Your task to perform on an android device: turn pop-ups on in chrome Image 0: 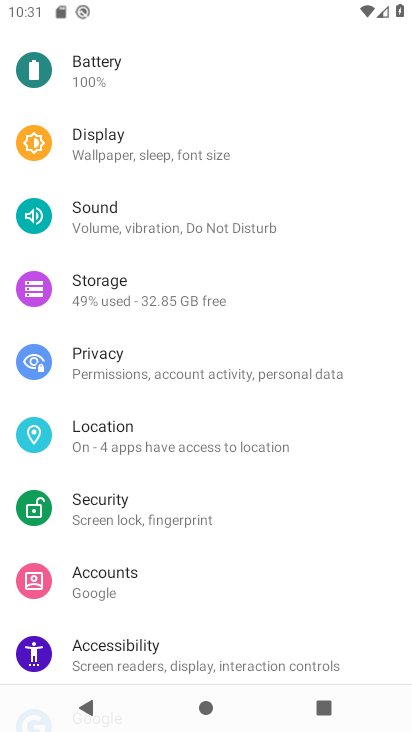
Step 0: press home button
Your task to perform on an android device: turn pop-ups on in chrome Image 1: 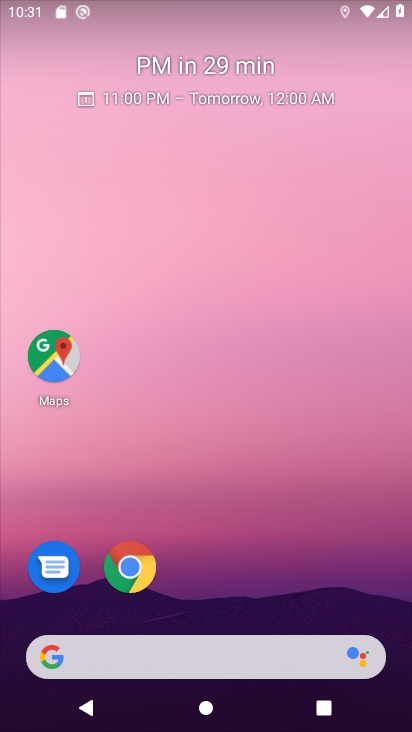
Step 1: click (149, 577)
Your task to perform on an android device: turn pop-ups on in chrome Image 2: 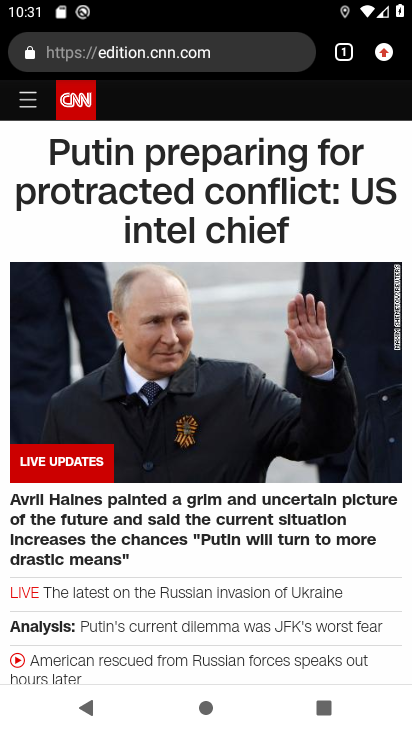
Step 2: click (382, 53)
Your task to perform on an android device: turn pop-ups on in chrome Image 3: 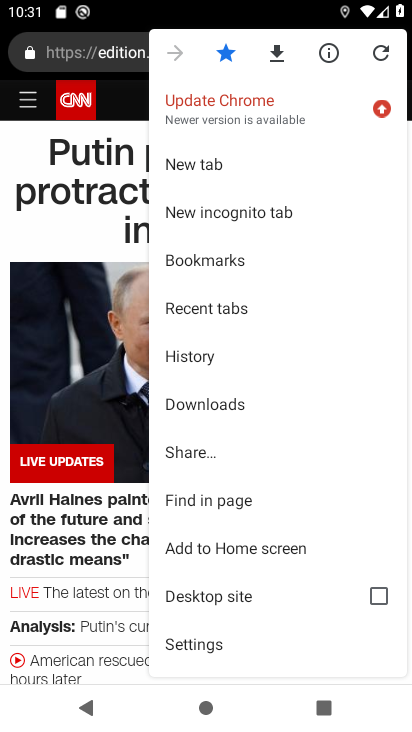
Step 3: click (195, 640)
Your task to perform on an android device: turn pop-ups on in chrome Image 4: 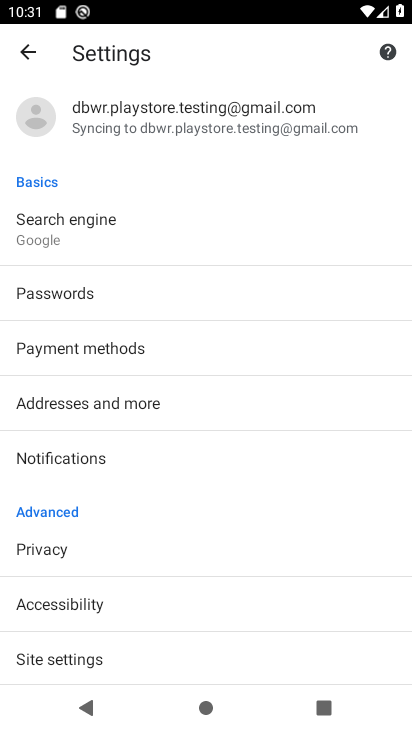
Step 4: click (66, 661)
Your task to perform on an android device: turn pop-ups on in chrome Image 5: 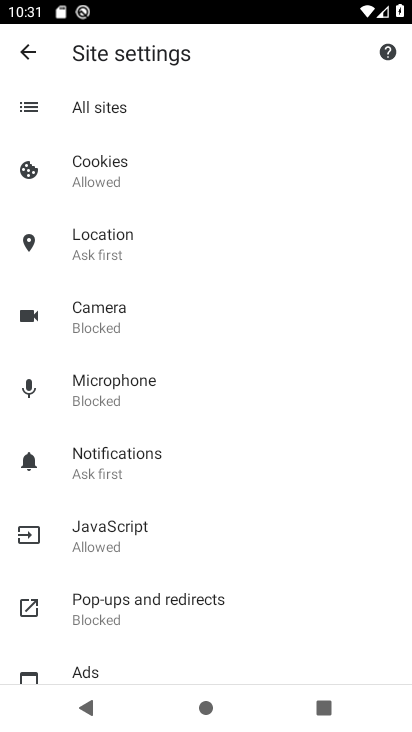
Step 5: drag from (111, 627) to (245, 247)
Your task to perform on an android device: turn pop-ups on in chrome Image 6: 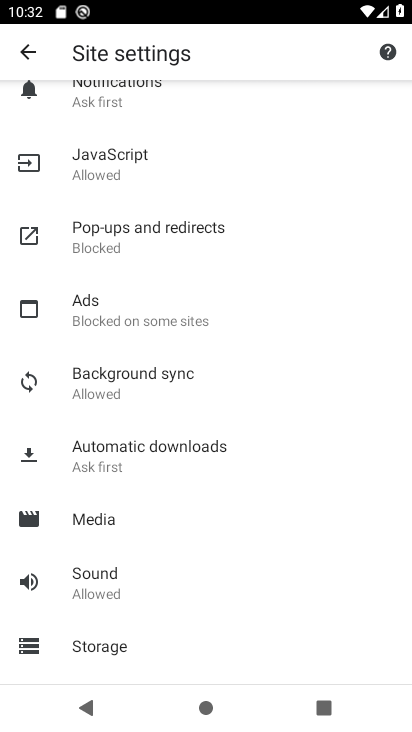
Step 6: click (245, 247)
Your task to perform on an android device: turn pop-ups on in chrome Image 7: 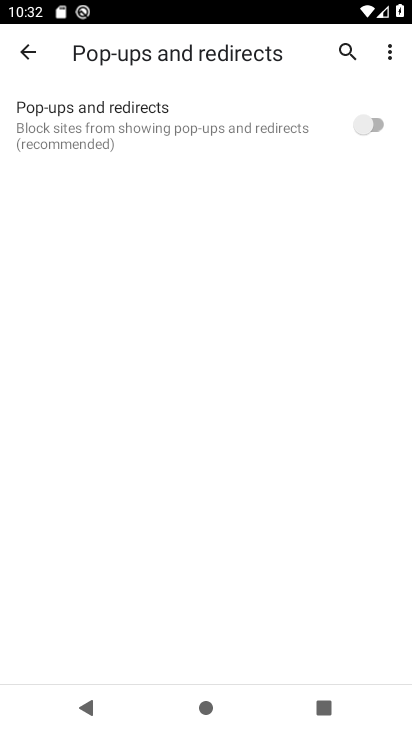
Step 7: click (366, 126)
Your task to perform on an android device: turn pop-ups on in chrome Image 8: 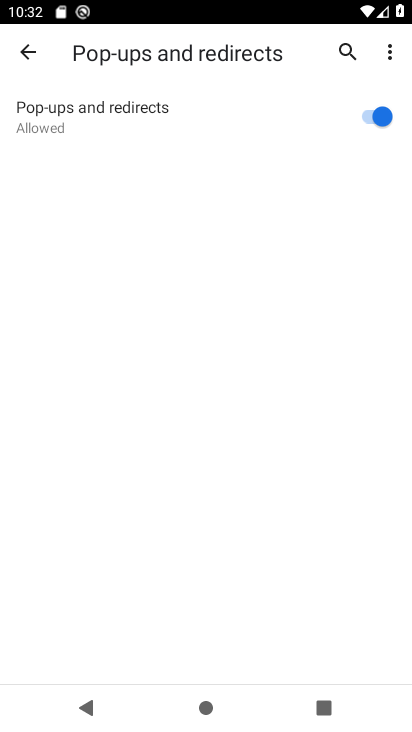
Step 8: task complete